Your task to perform on an android device: change notifications settings Image 0: 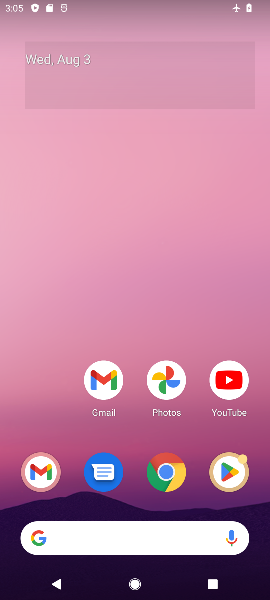
Step 0: drag from (143, 516) to (15, 33)
Your task to perform on an android device: change notifications settings Image 1: 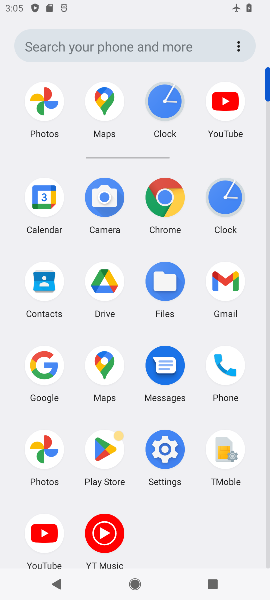
Step 1: click (159, 455)
Your task to perform on an android device: change notifications settings Image 2: 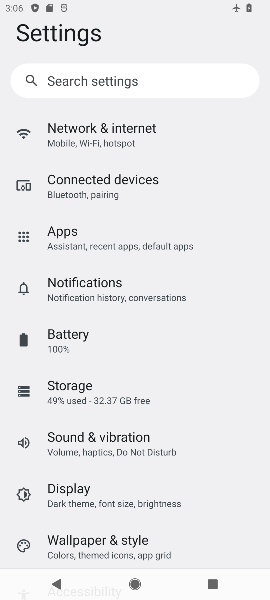
Step 2: click (105, 303)
Your task to perform on an android device: change notifications settings Image 3: 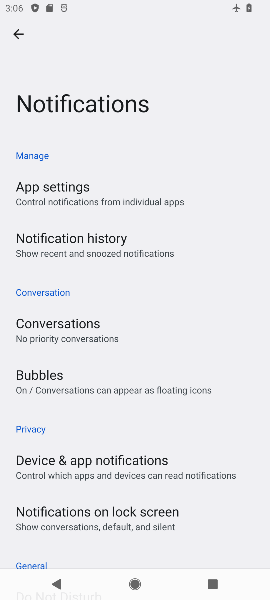
Step 3: task complete